Your task to perform on an android device: Play the last video I watched on Youtube Image 0: 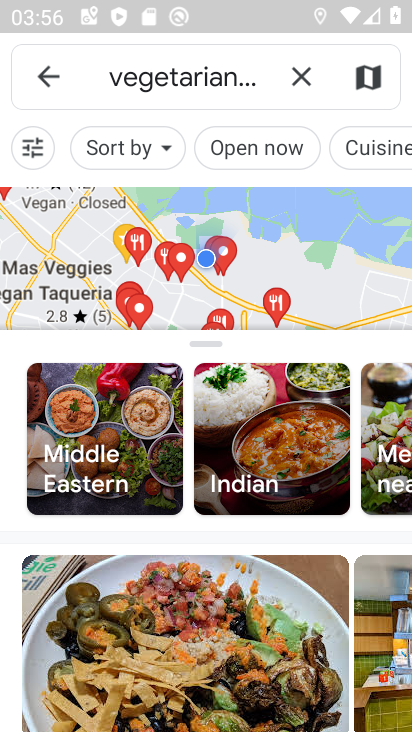
Step 0: press home button
Your task to perform on an android device: Play the last video I watched on Youtube Image 1: 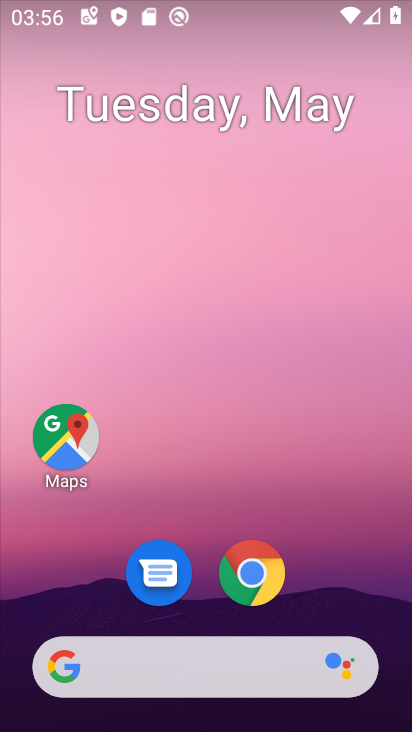
Step 1: drag from (147, 559) to (241, 50)
Your task to perform on an android device: Play the last video I watched on Youtube Image 2: 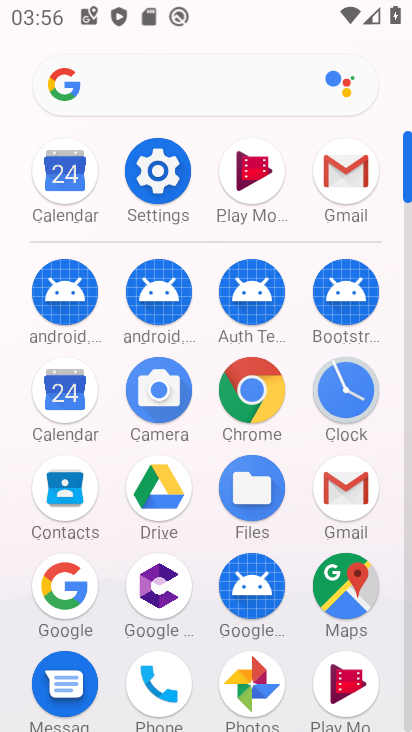
Step 2: drag from (257, 581) to (270, 55)
Your task to perform on an android device: Play the last video I watched on Youtube Image 3: 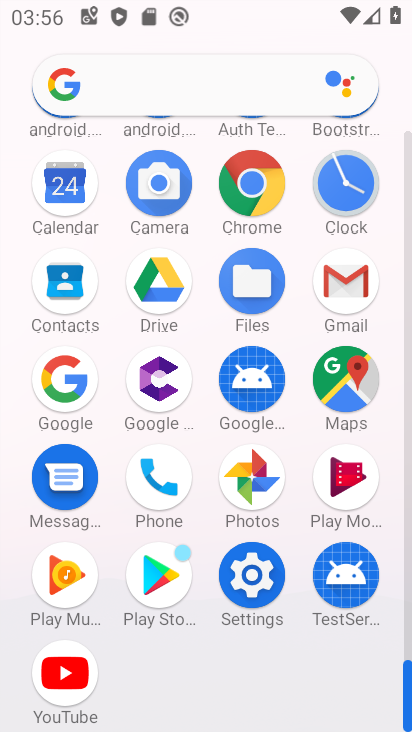
Step 3: click (76, 647)
Your task to perform on an android device: Play the last video I watched on Youtube Image 4: 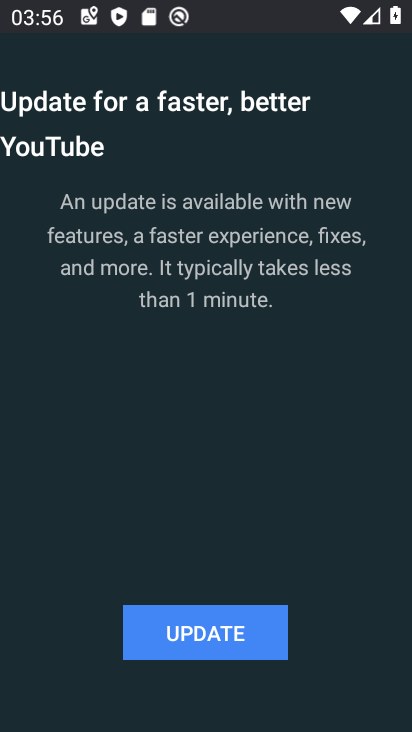
Step 4: click (226, 638)
Your task to perform on an android device: Play the last video I watched on Youtube Image 5: 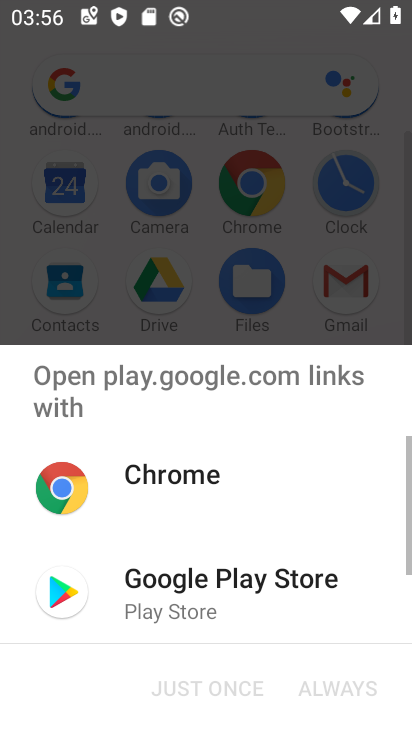
Step 5: click (166, 588)
Your task to perform on an android device: Play the last video I watched on Youtube Image 6: 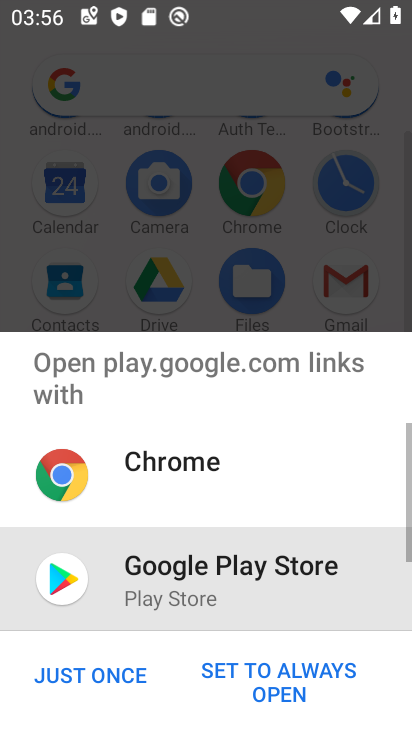
Step 6: click (62, 686)
Your task to perform on an android device: Play the last video I watched on Youtube Image 7: 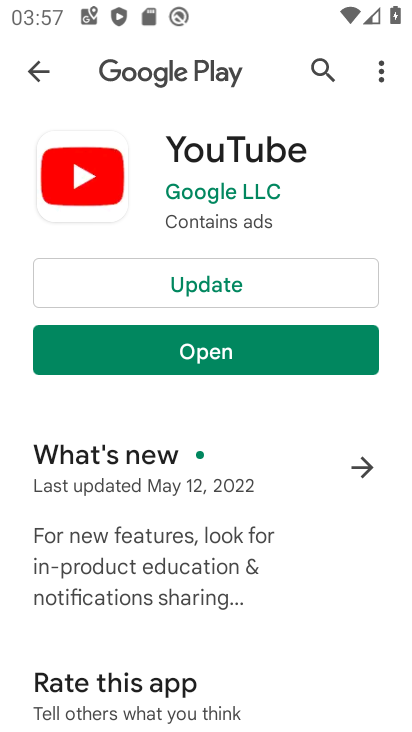
Step 7: click (218, 291)
Your task to perform on an android device: Play the last video I watched on Youtube Image 8: 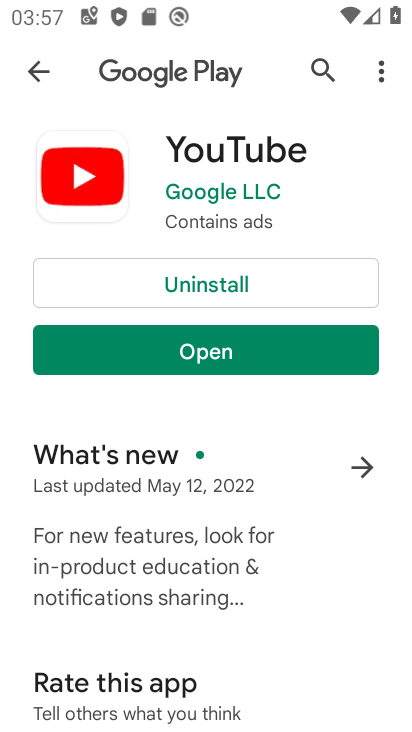
Step 8: click (155, 366)
Your task to perform on an android device: Play the last video I watched on Youtube Image 9: 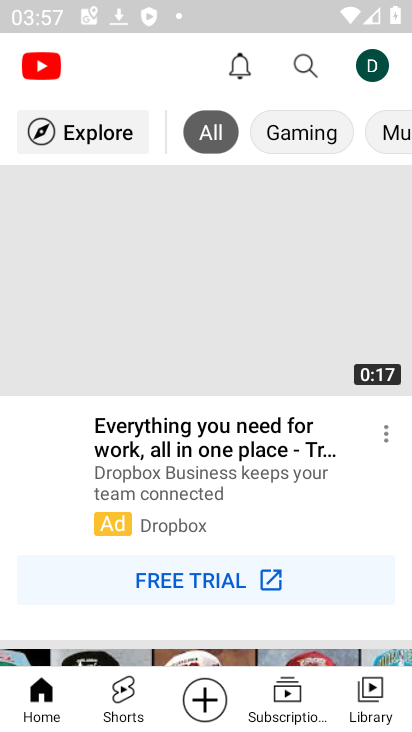
Step 9: click (368, 688)
Your task to perform on an android device: Play the last video I watched on Youtube Image 10: 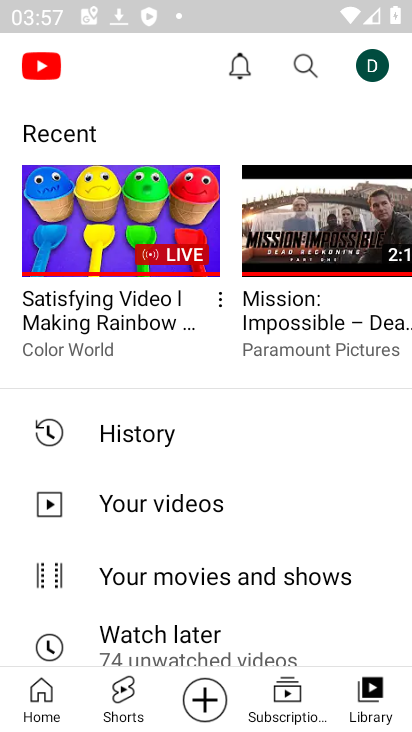
Step 10: click (117, 206)
Your task to perform on an android device: Play the last video I watched on Youtube Image 11: 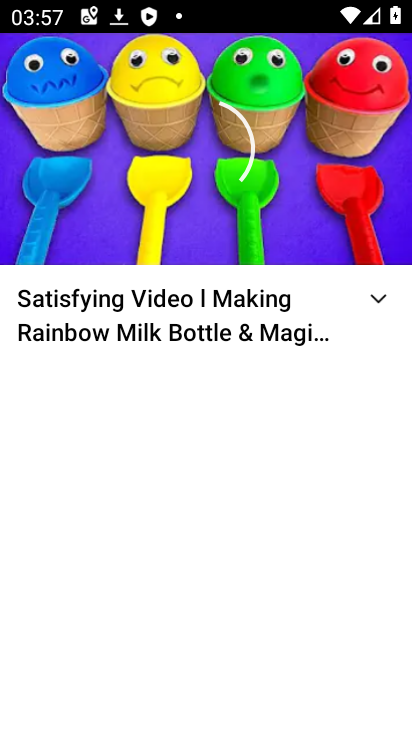
Step 11: task complete